Your task to perform on an android device: manage bookmarks in the chrome app Image 0: 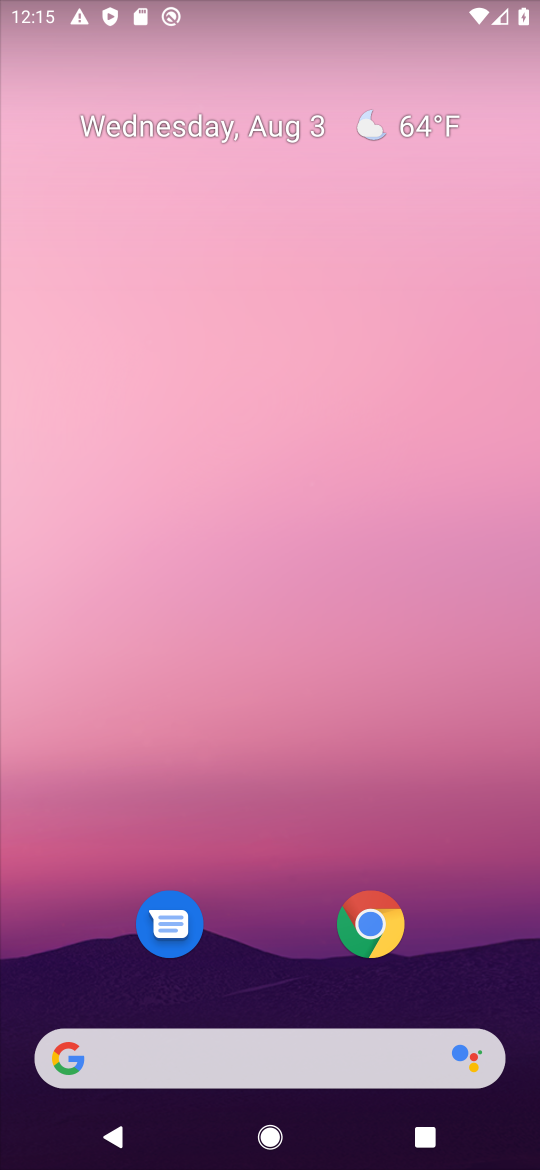
Step 0: click (380, 914)
Your task to perform on an android device: manage bookmarks in the chrome app Image 1: 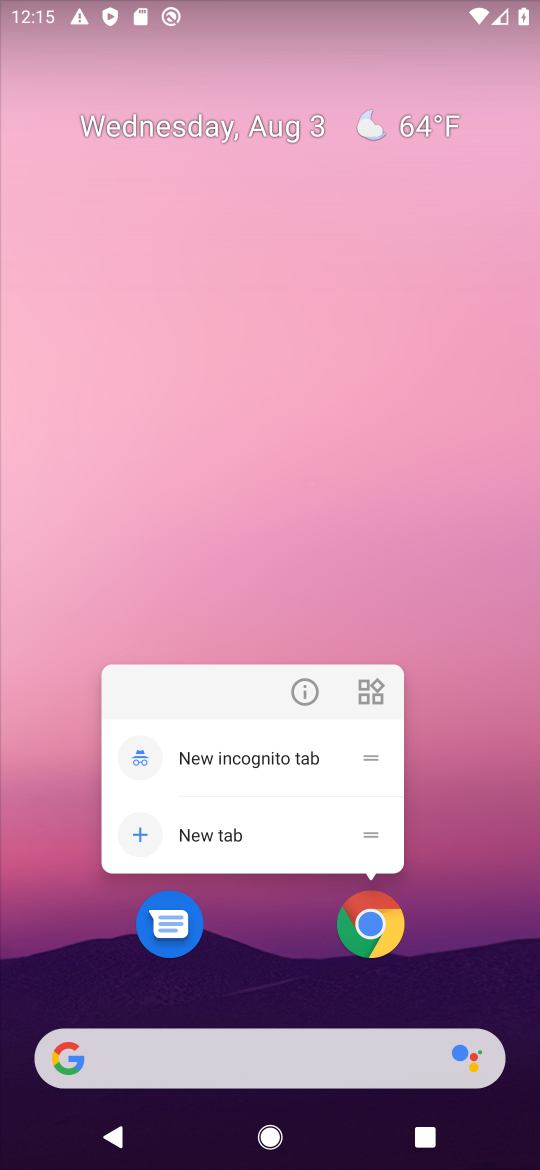
Step 1: click (384, 927)
Your task to perform on an android device: manage bookmarks in the chrome app Image 2: 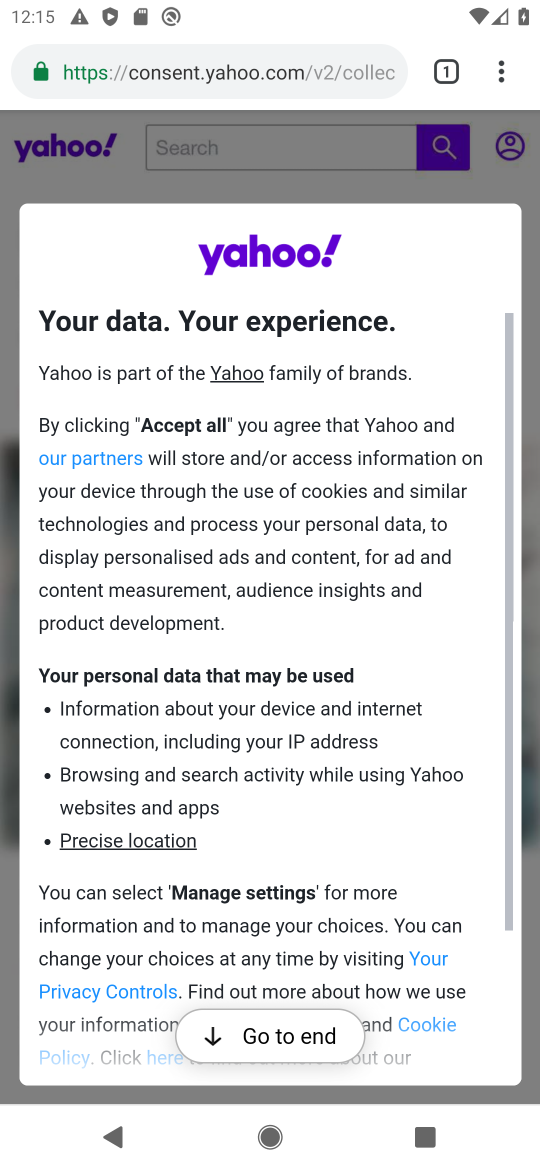
Step 2: drag from (501, 63) to (323, 267)
Your task to perform on an android device: manage bookmarks in the chrome app Image 3: 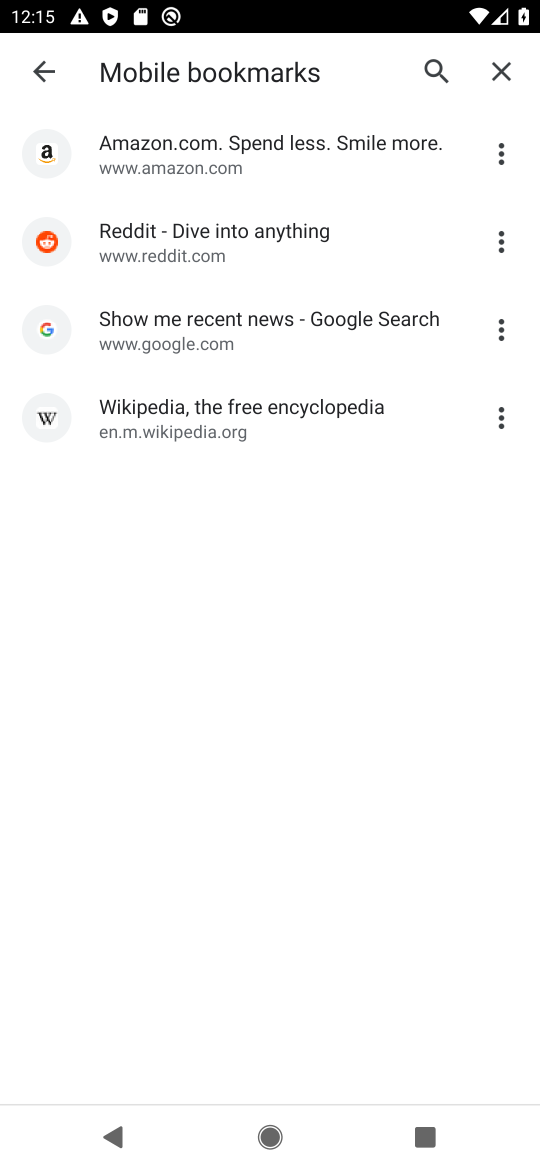
Step 3: click (508, 416)
Your task to perform on an android device: manage bookmarks in the chrome app Image 4: 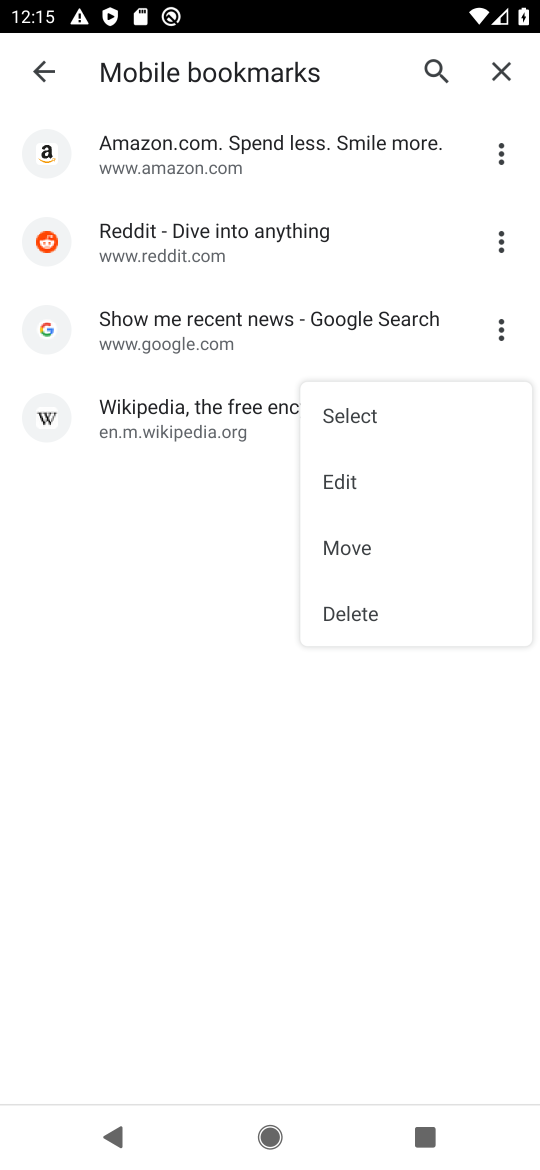
Step 4: click (385, 613)
Your task to perform on an android device: manage bookmarks in the chrome app Image 5: 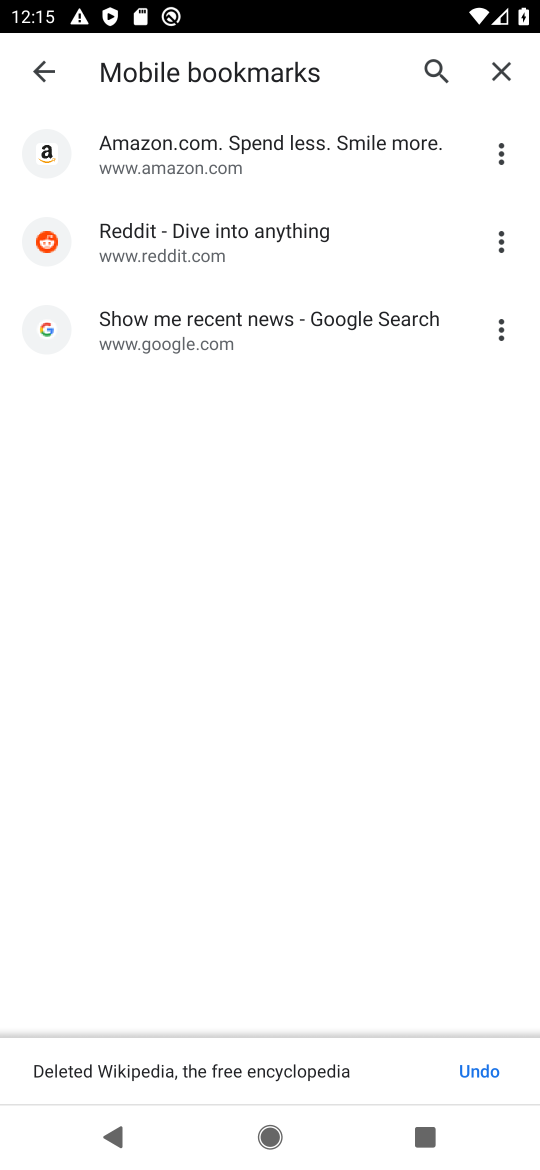
Step 5: task complete